Your task to perform on an android device: open device folders in google photos Image 0: 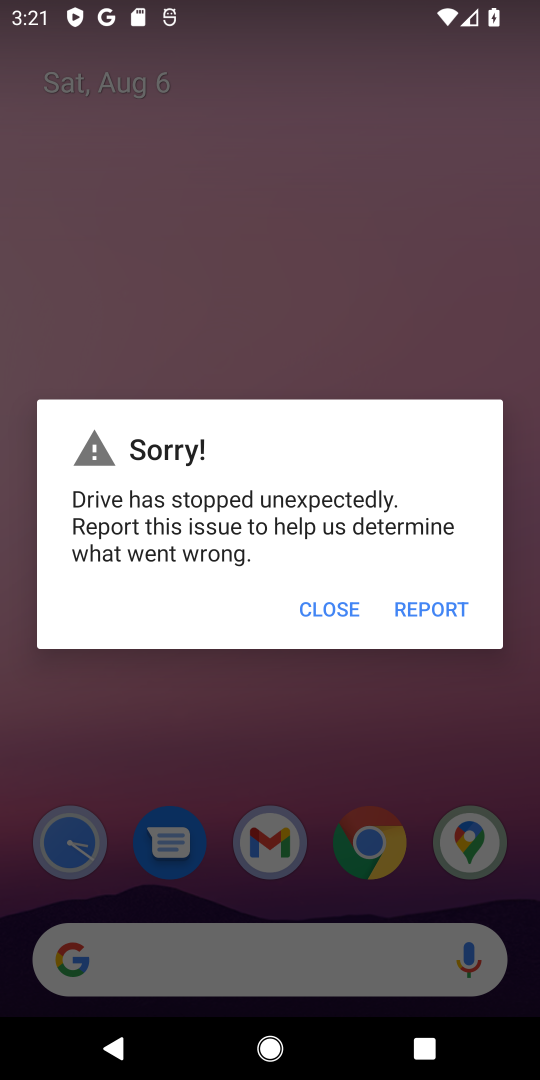
Step 0: press home button
Your task to perform on an android device: open device folders in google photos Image 1: 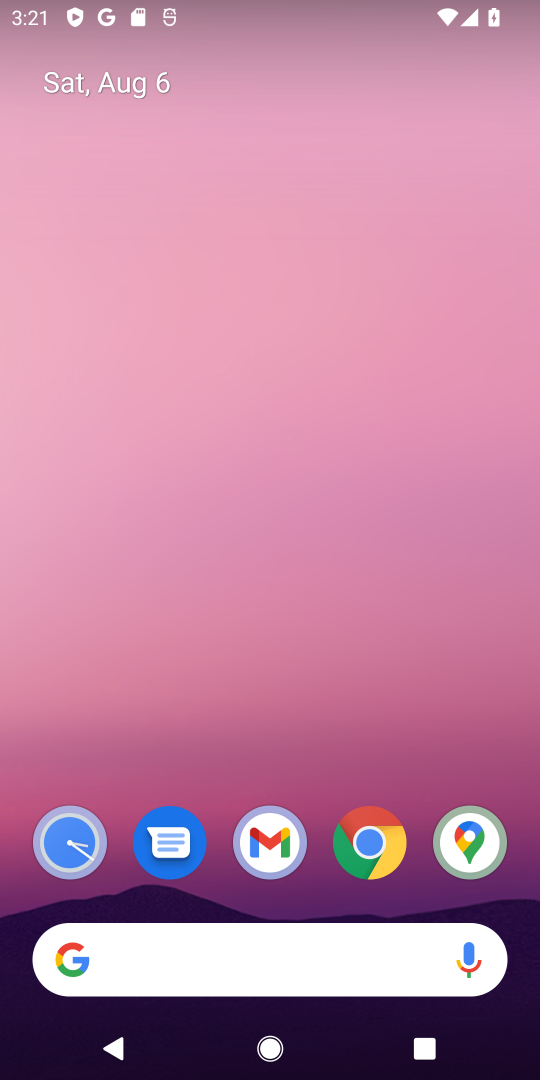
Step 1: drag from (497, 914) to (396, 228)
Your task to perform on an android device: open device folders in google photos Image 2: 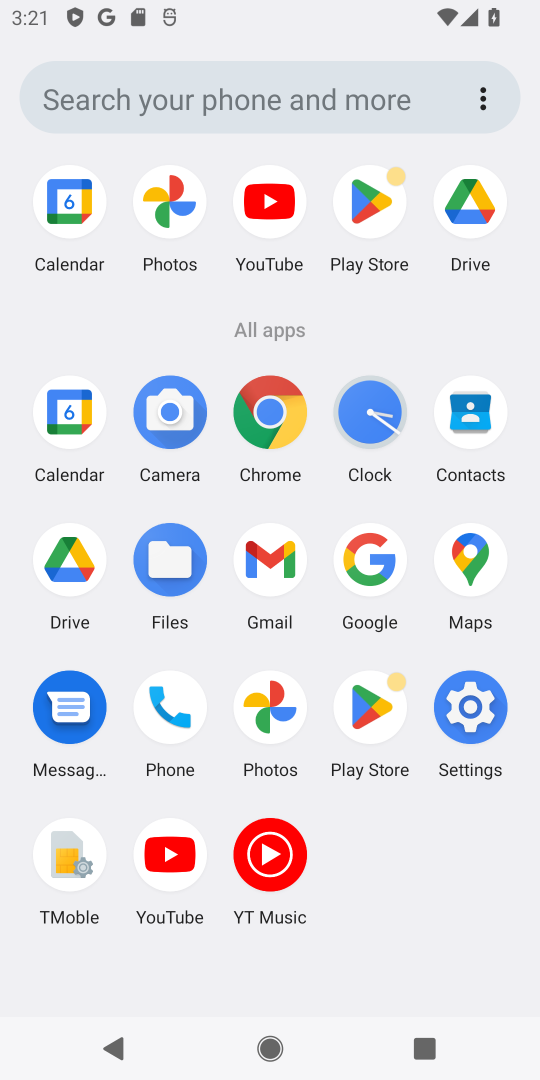
Step 2: click (183, 196)
Your task to perform on an android device: open device folders in google photos Image 3: 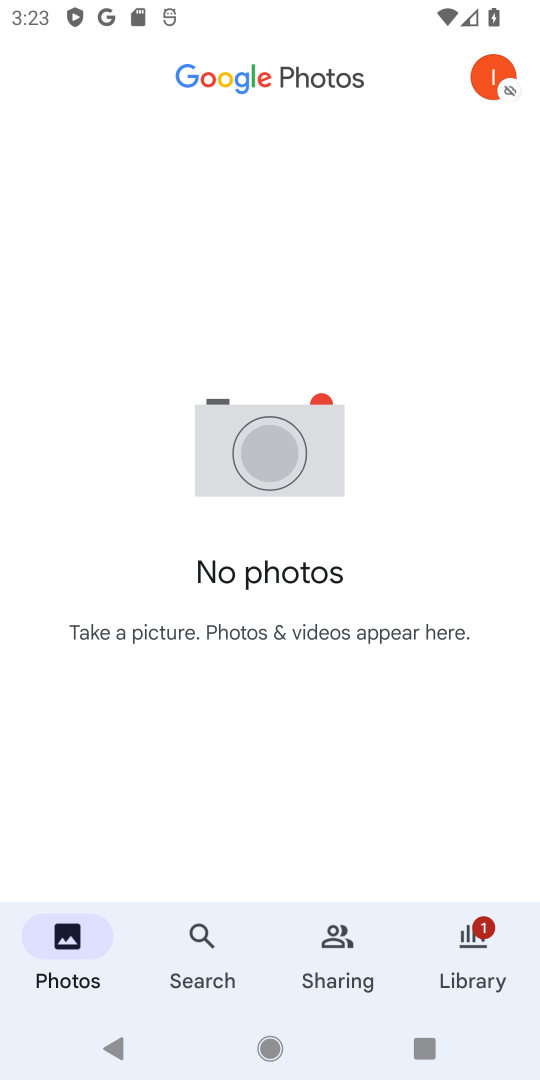
Step 3: task complete